Your task to perform on an android device: Turn on the flashlight Image 0: 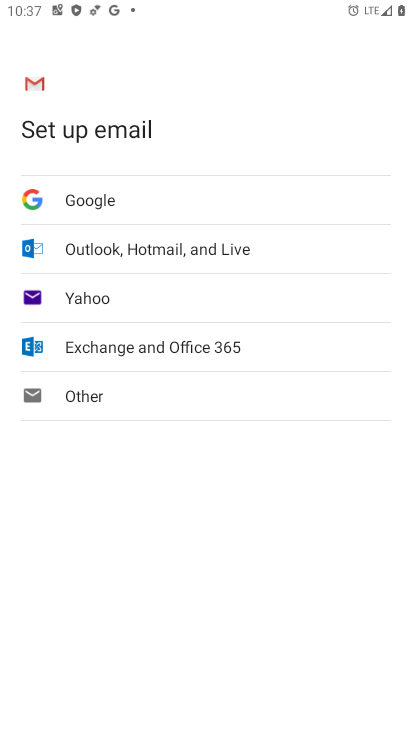
Step 0: press home button
Your task to perform on an android device: Turn on the flashlight Image 1: 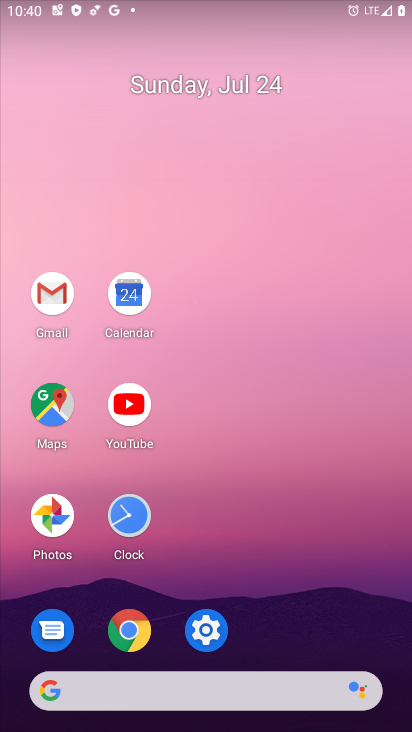
Step 1: click (215, 618)
Your task to perform on an android device: Turn on the flashlight Image 2: 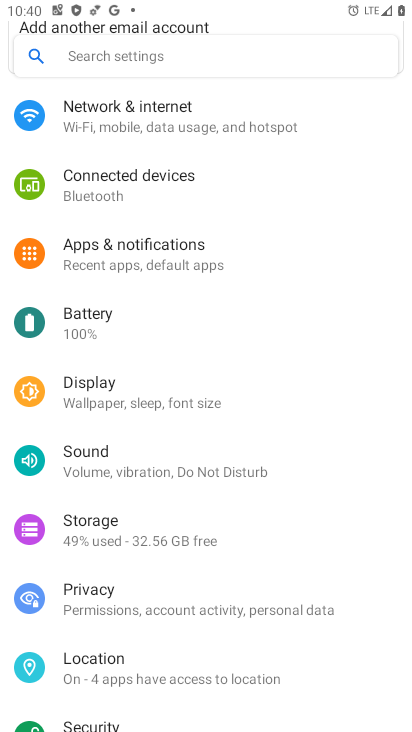
Step 2: click (81, 384)
Your task to perform on an android device: Turn on the flashlight Image 3: 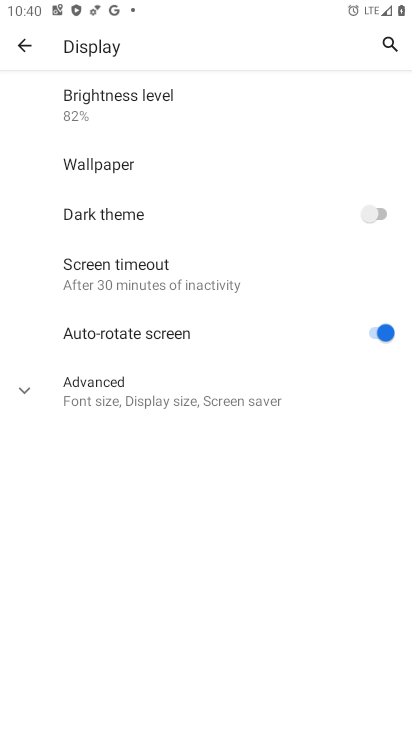
Step 3: task complete